Your task to perform on an android device: Go to battery settings Image 0: 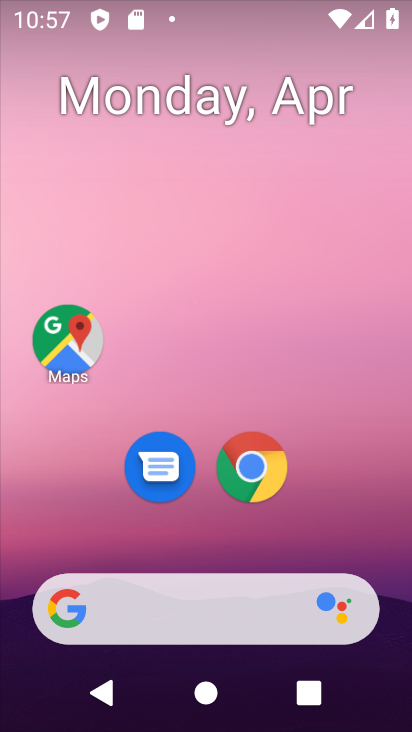
Step 0: drag from (309, 511) to (346, 127)
Your task to perform on an android device: Go to battery settings Image 1: 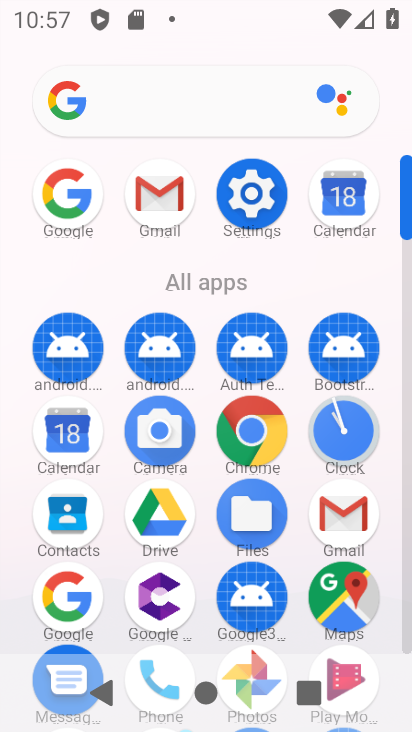
Step 1: click (259, 198)
Your task to perform on an android device: Go to battery settings Image 2: 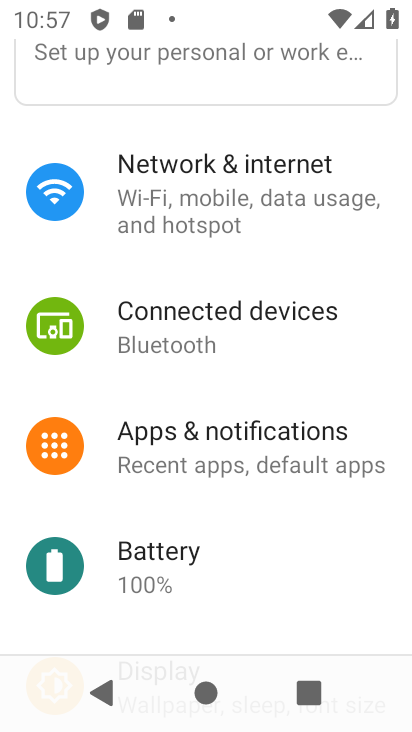
Step 2: click (208, 567)
Your task to perform on an android device: Go to battery settings Image 3: 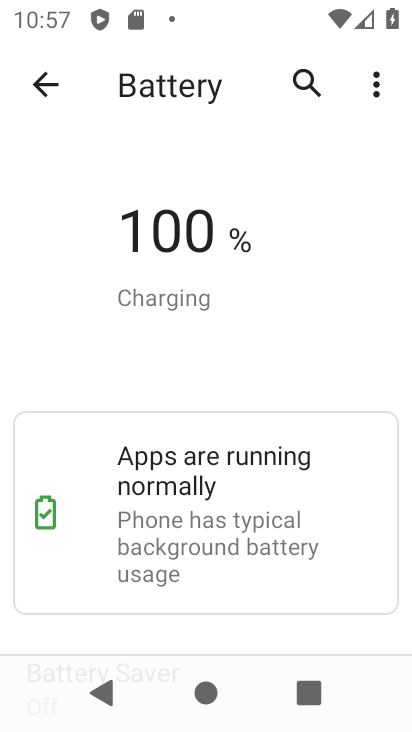
Step 3: task complete